Your task to perform on an android device: open app "Adobe Express: Graphic Design" Image 0: 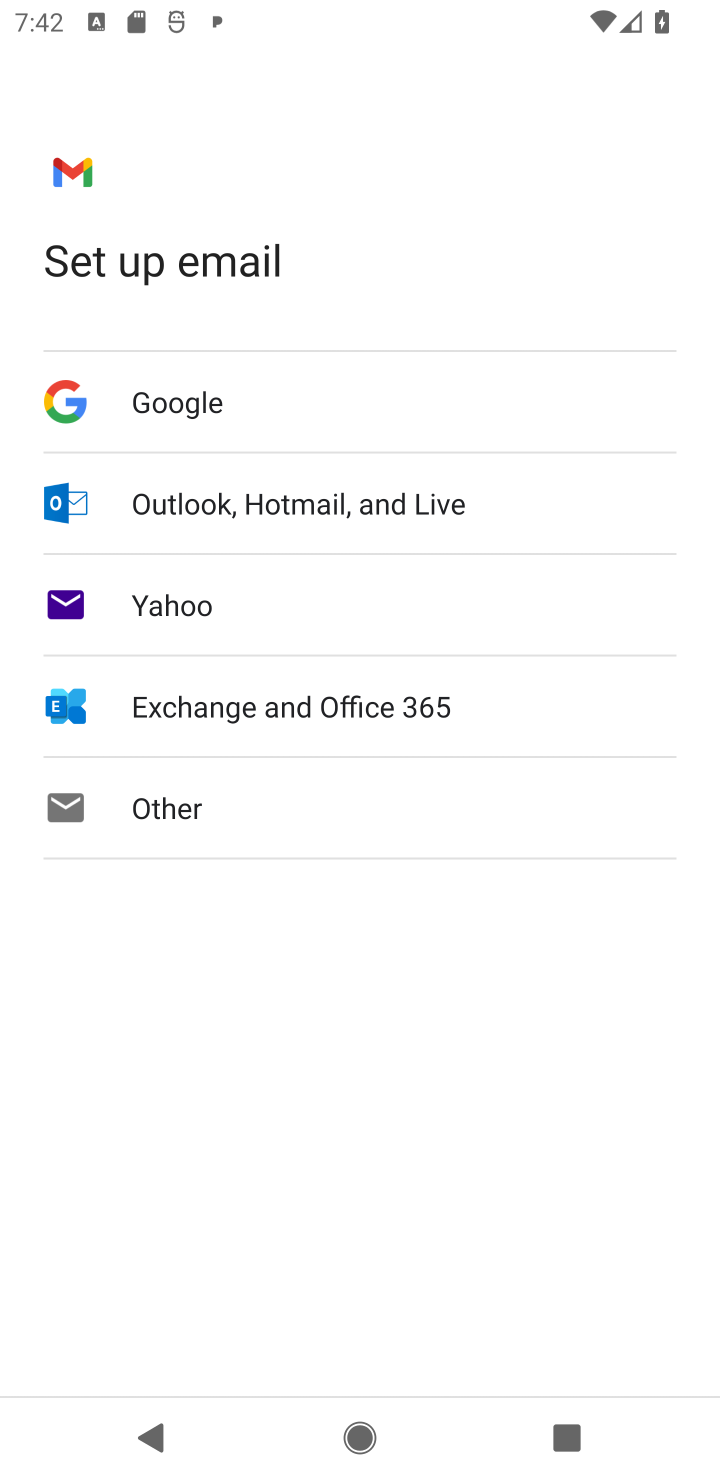
Step 0: press home button
Your task to perform on an android device: open app "Adobe Express: Graphic Design" Image 1: 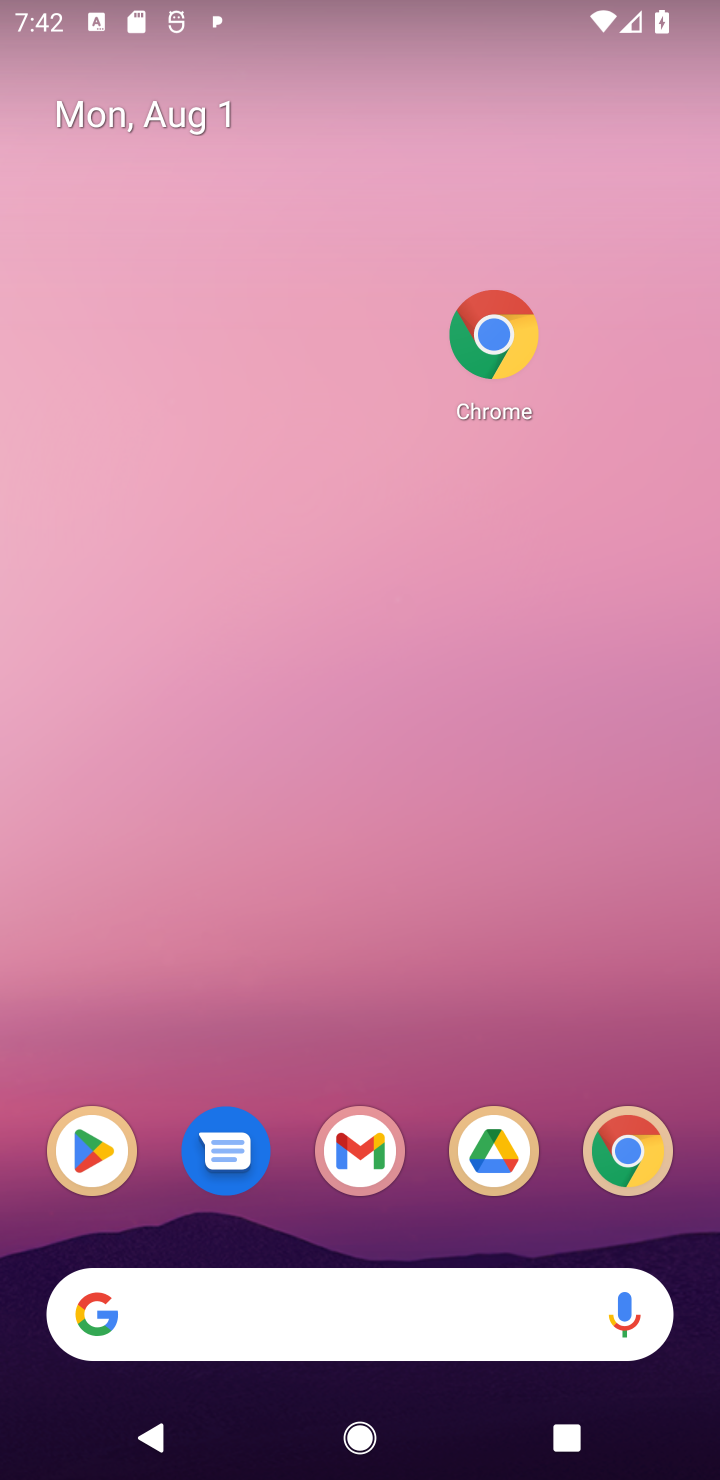
Step 1: click (84, 1147)
Your task to perform on an android device: open app "Adobe Express: Graphic Design" Image 2: 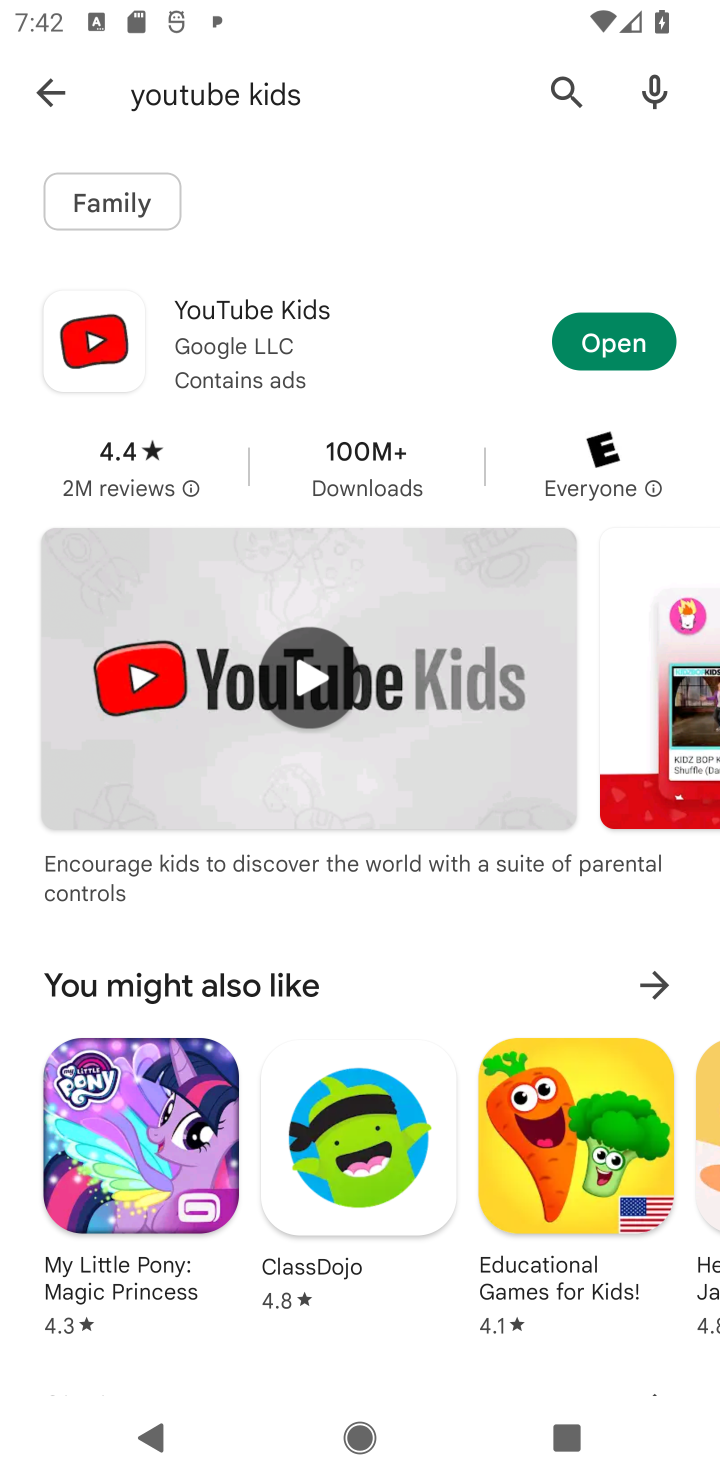
Step 2: click (555, 87)
Your task to perform on an android device: open app "Adobe Express: Graphic Design" Image 3: 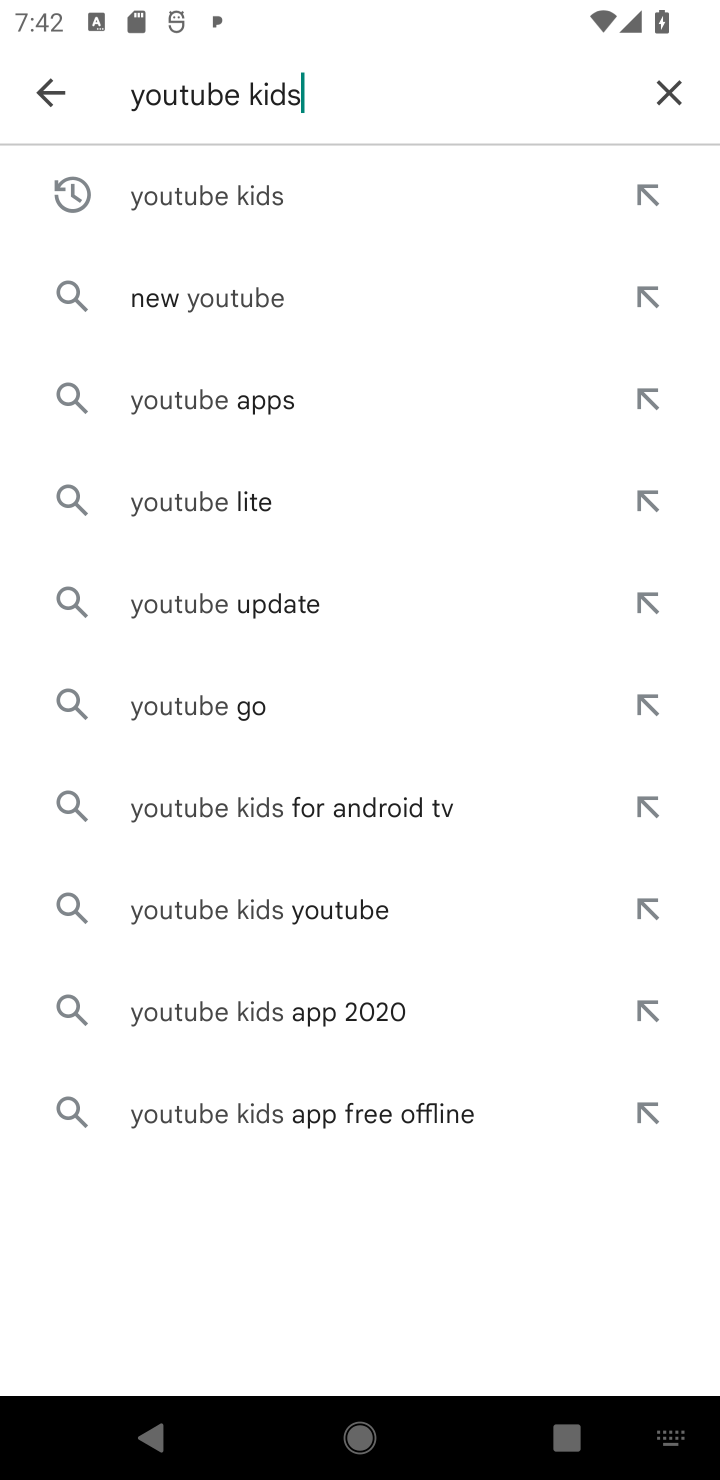
Step 3: click (675, 83)
Your task to perform on an android device: open app "Adobe Express: Graphic Design" Image 4: 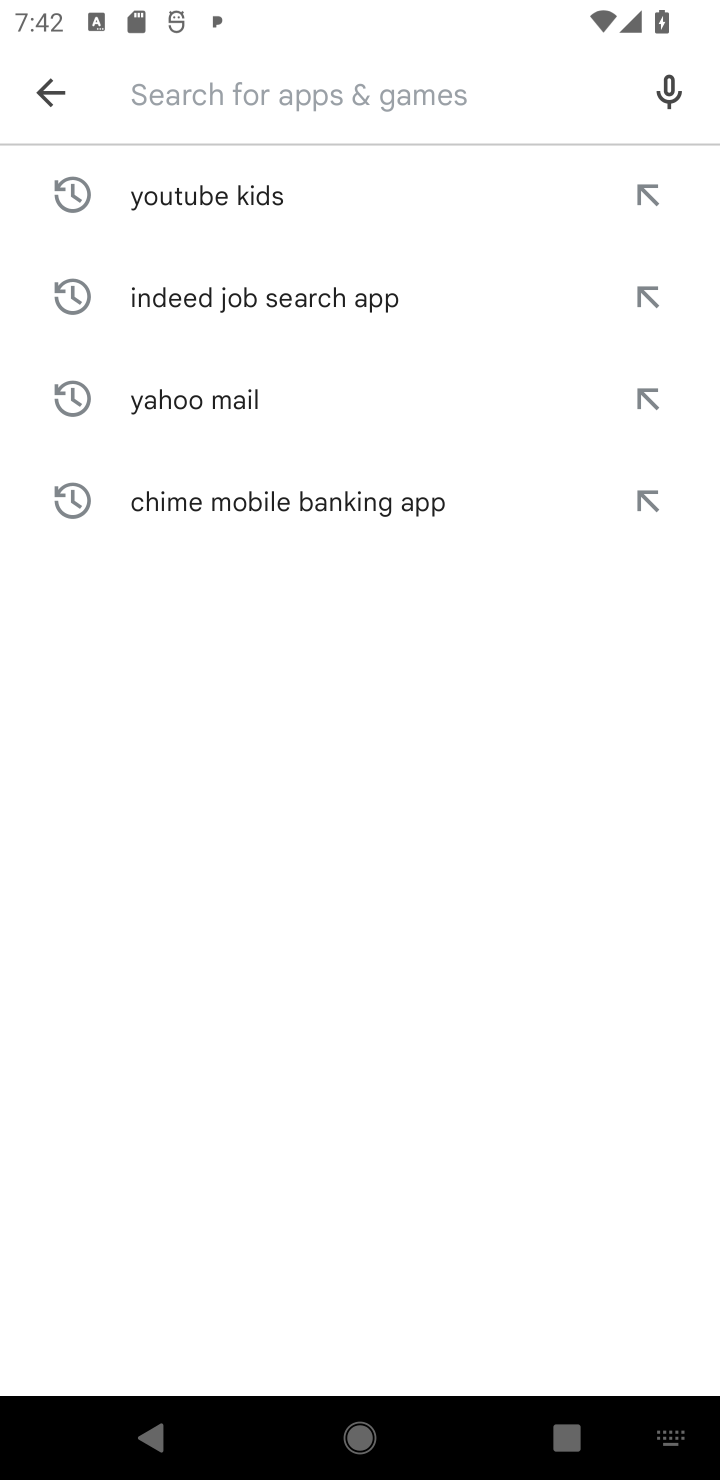
Step 4: type "Adobe Express: Graphic Design"
Your task to perform on an android device: open app "Adobe Express: Graphic Design" Image 5: 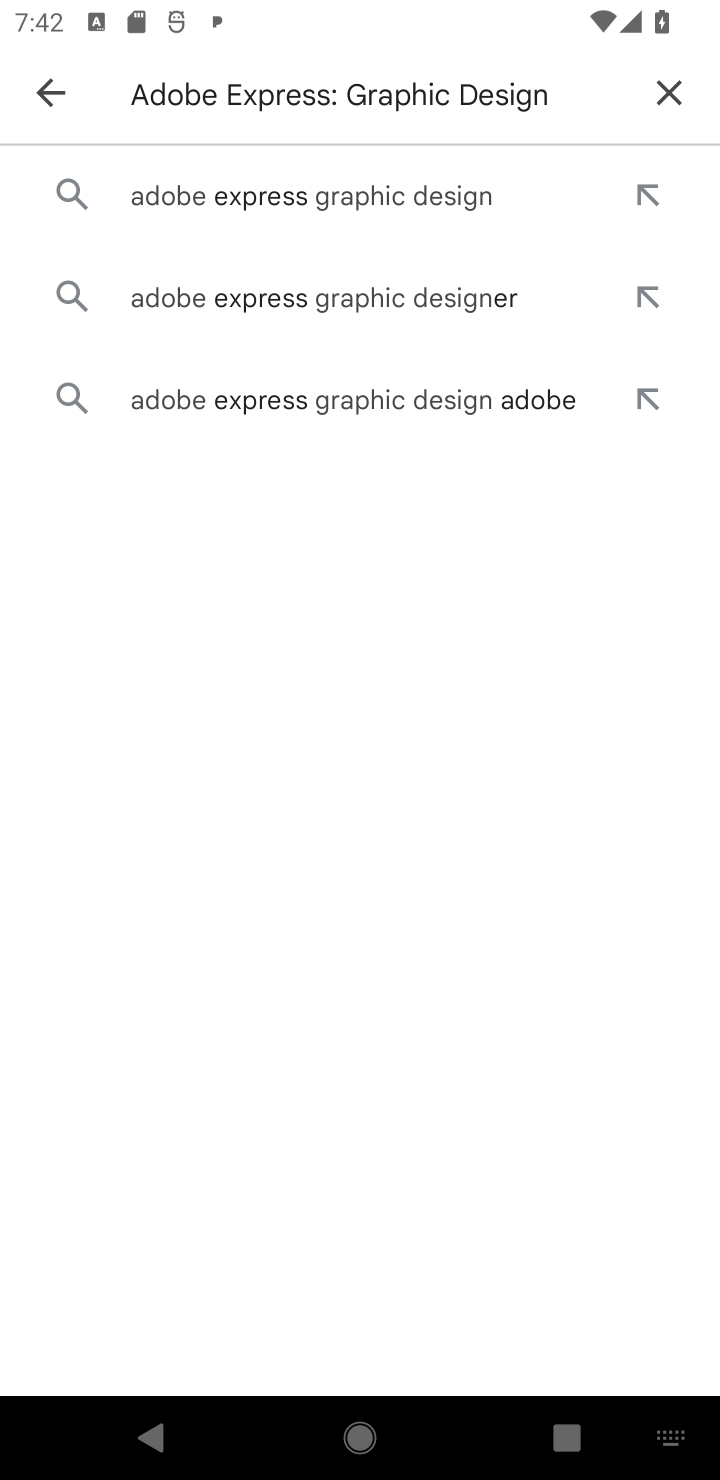
Step 5: click (252, 200)
Your task to perform on an android device: open app "Adobe Express: Graphic Design" Image 6: 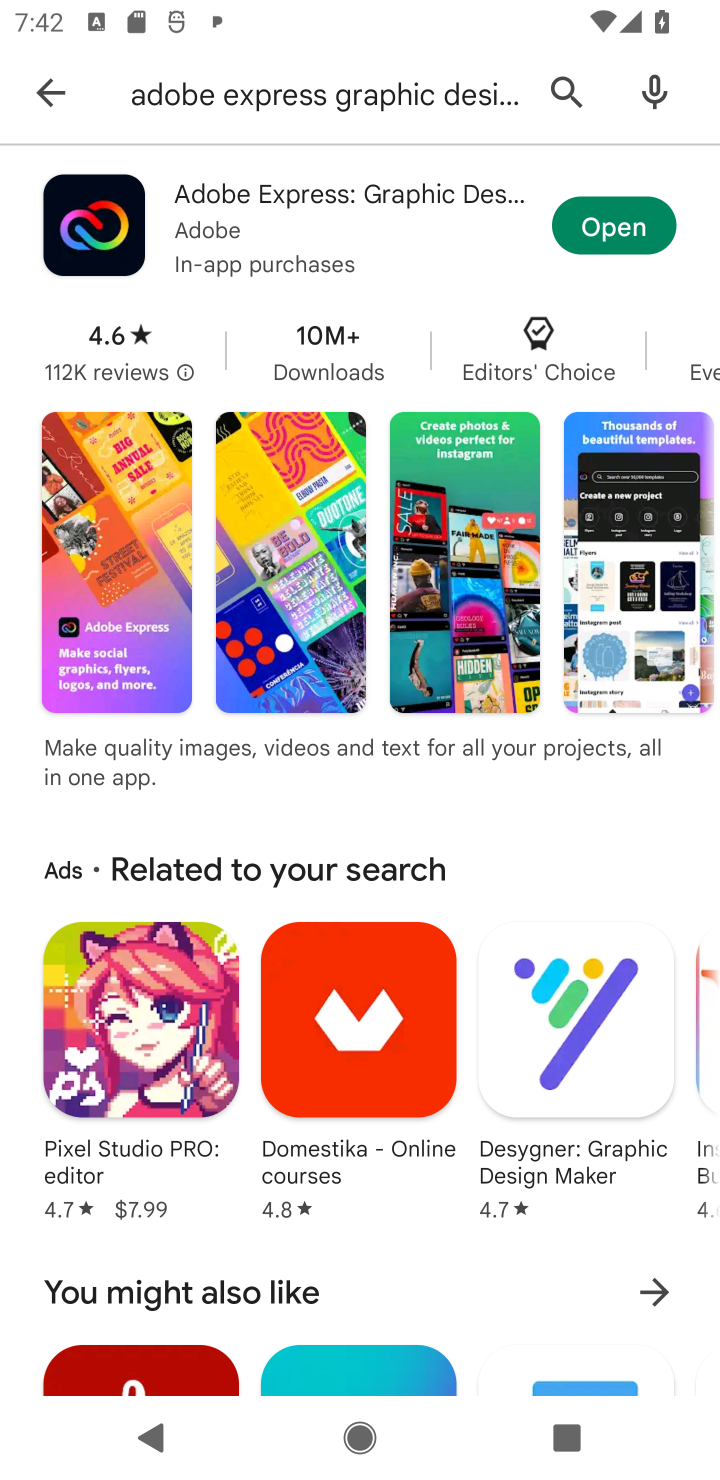
Step 6: click (574, 234)
Your task to perform on an android device: open app "Adobe Express: Graphic Design" Image 7: 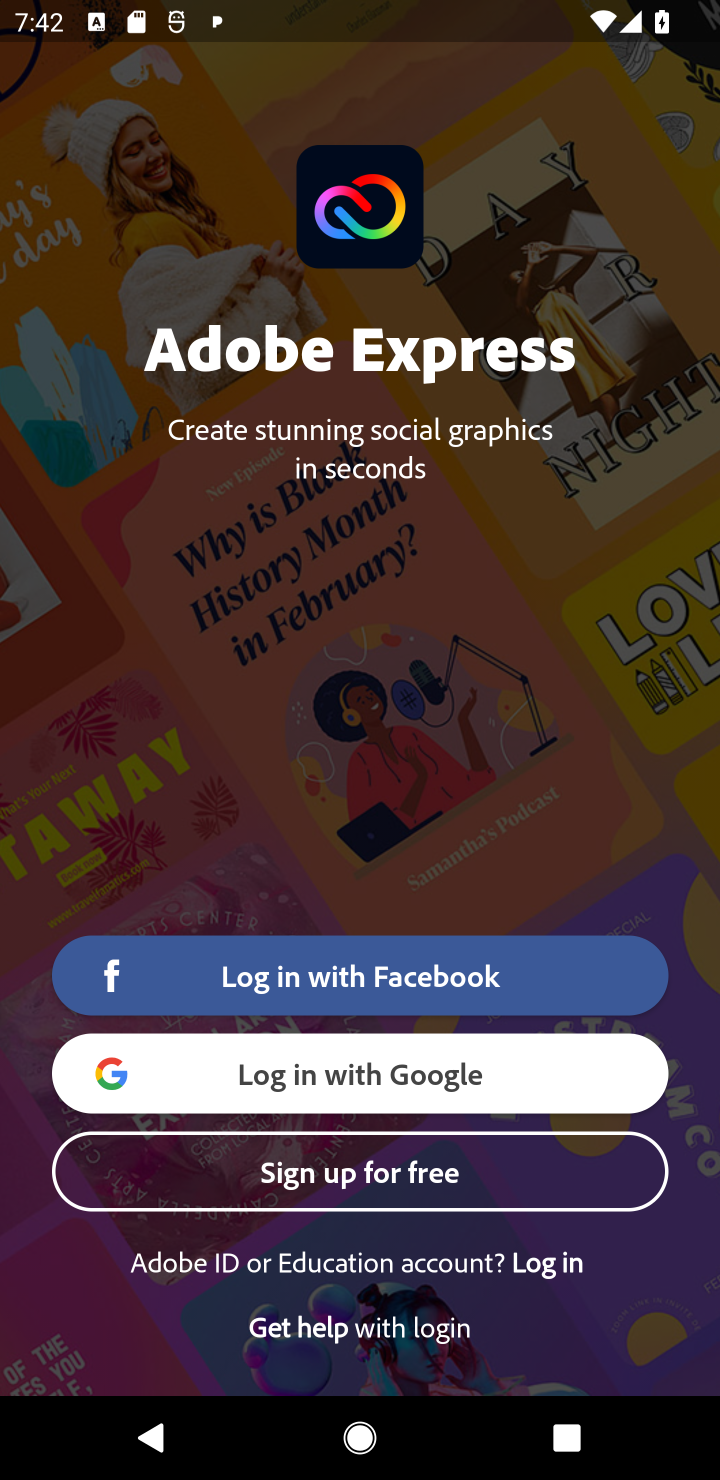
Step 7: task complete